Your task to perform on an android device: Go to Android settings Image 0: 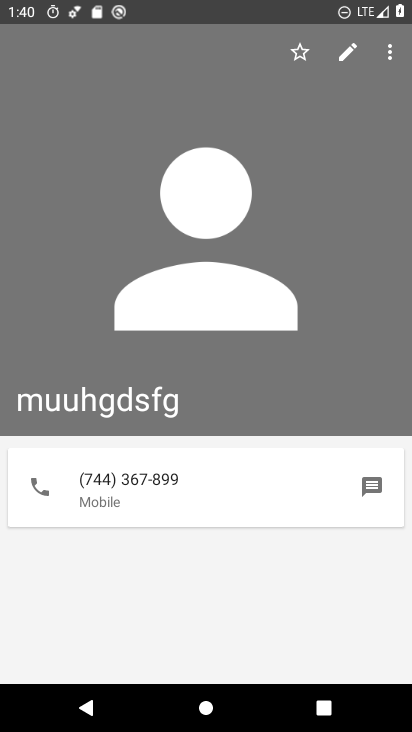
Step 0: press home button
Your task to perform on an android device: Go to Android settings Image 1: 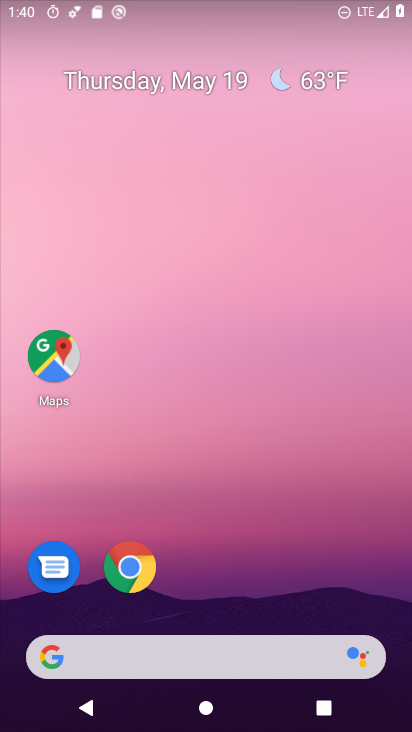
Step 1: drag from (194, 659) to (331, 175)
Your task to perform on an android device: Go to Android settings Image 2: 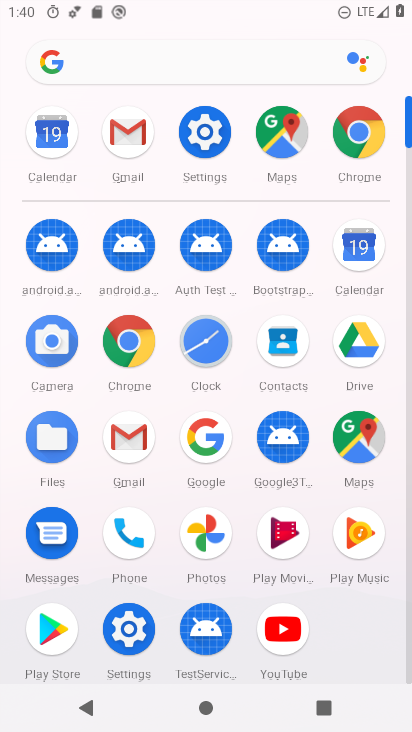
Step 2: click (202, 140)
Your task to perform on an android device: Go to Android settings Image 3: 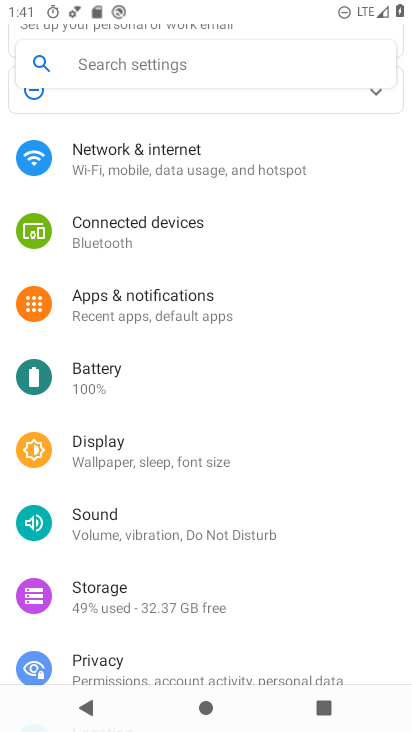
Step 3: task complete